Your task to perform on an android device: change keyboard looks Image 0: 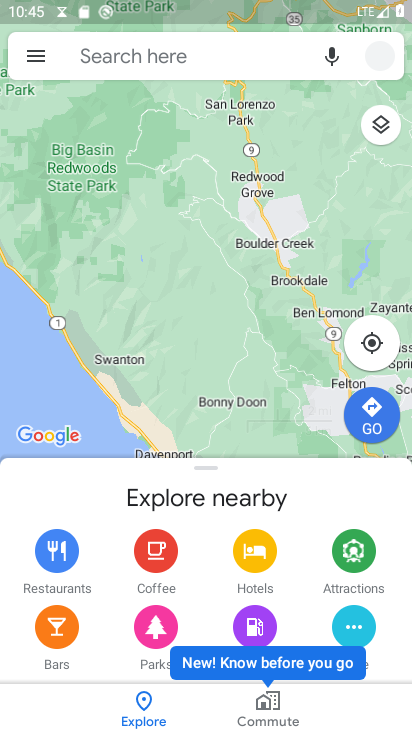
Step 0: press home button
Your task to perform on an android device: change keyboard looks Image 1: 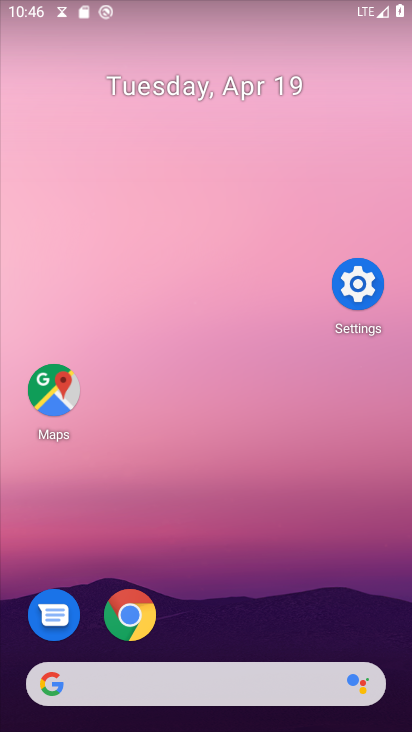
Step 1: click (359, 280)
Your task to perform on an android device: change keyboard looks Image 2: 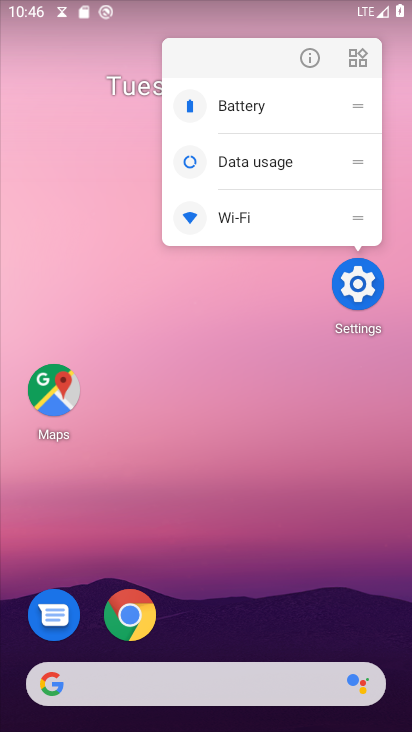
Step 2: click (308, 60)
Your task to perform on an android device: change keyboard looks Image 3: 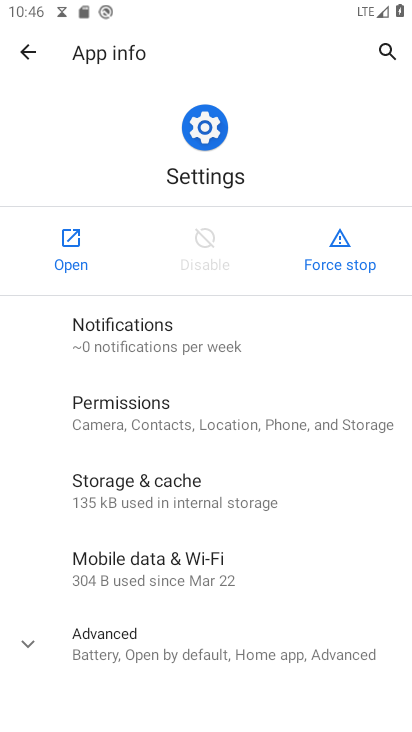
Step 3: click (67, 241)
Your task to perform on an android device: change keyboard looks Image 4: 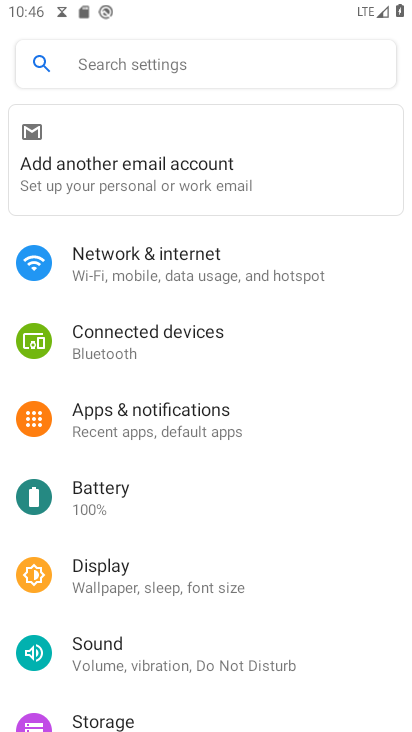
Step 4: drag from (226, 594) to (290, 84)
Your task to perform on an android device: change keyboard looks Image 5: 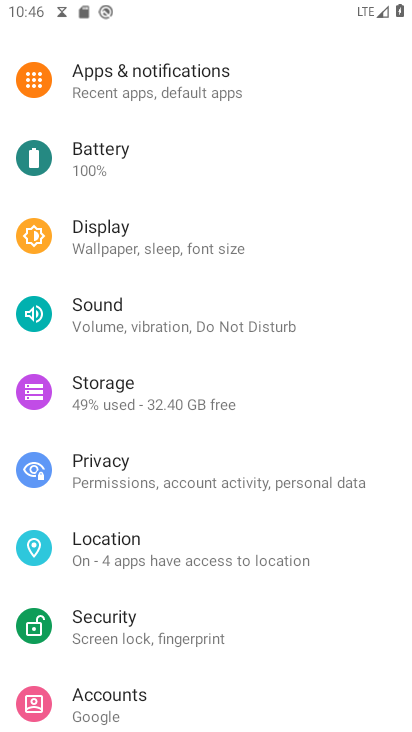
Step 5: drag from (189, 642) to (276, 140)
Your task to perform on an android device: change keyboard looks Image 6: 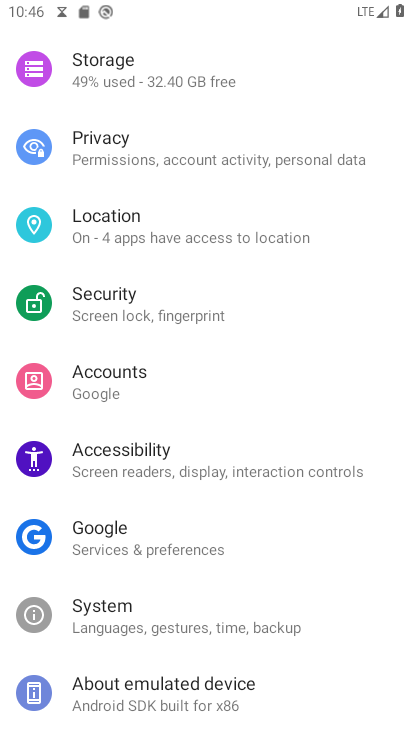
Step 6: drag from (118, 630) to (175, 266)
Your task to perform on an android device: change keyboard looks Image 7: 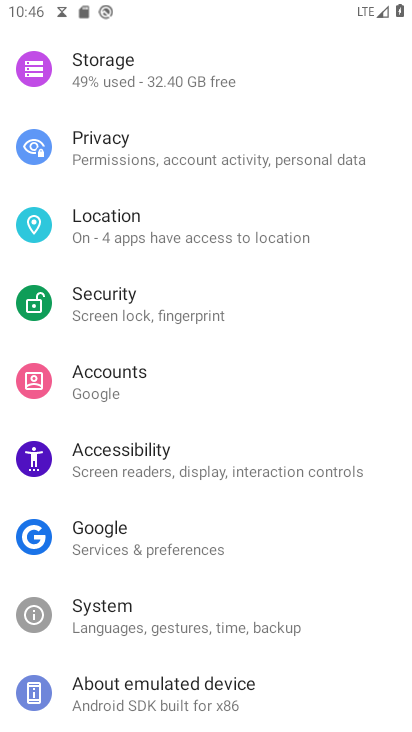
Step 7: click (115, 605)
Your task to perform on an android device: change keyboard looks Image 8: 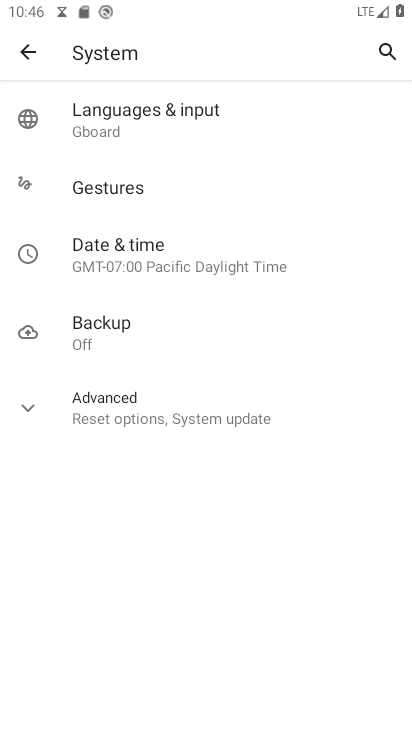
Step 8: click (204, 113)
Your task to perform on an android device: change keyboard looks Image 9: 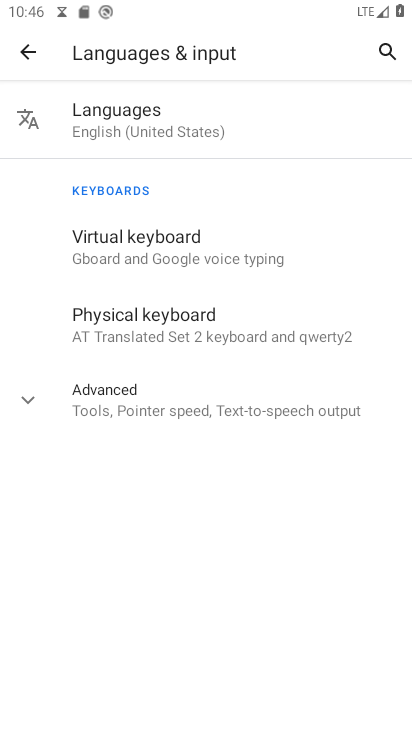
Step 9: click (164, 247)
Your task to perform on an android device: change keyboard looks Image 10: 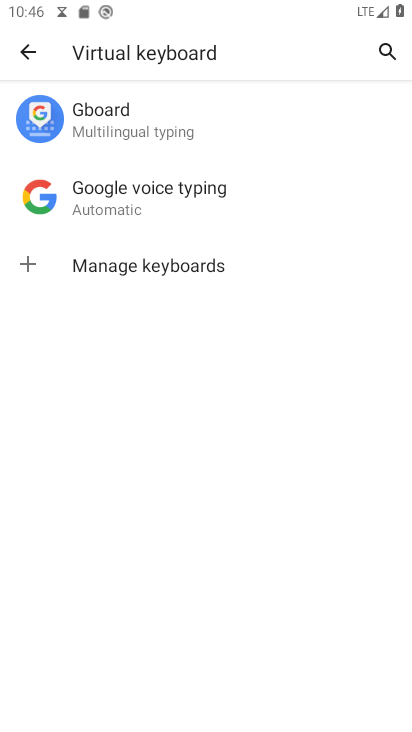
Step 10: click (176, 125)
Your task to perform on an android device: change keyboard looks Image 11: 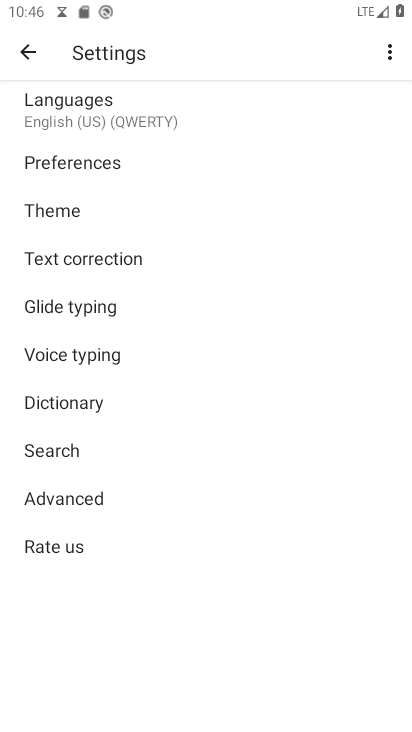
Step 11: click (90, 212)
Your task to perform on an android device: change keyboard looks Image 12: 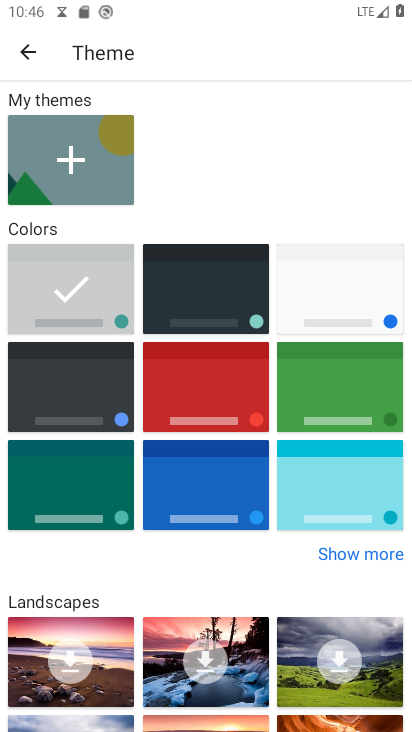
Step 12: click (222, 475)
Your task to perform on an android device: change keyboard looks Image 13: 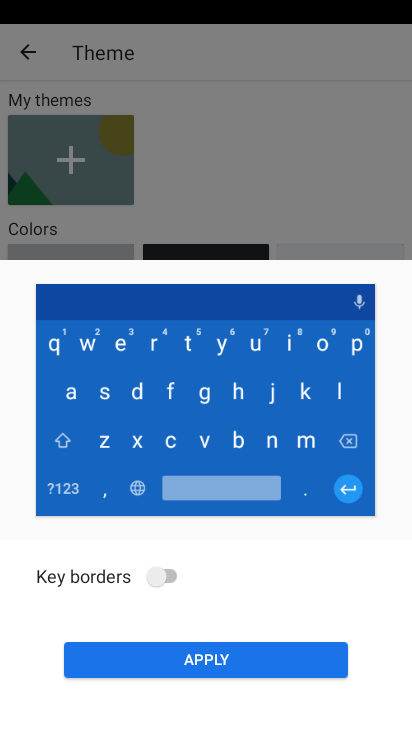
Step 13: click (180, 665)
Your task to perform on an android device: change keyboard looks Image 14: 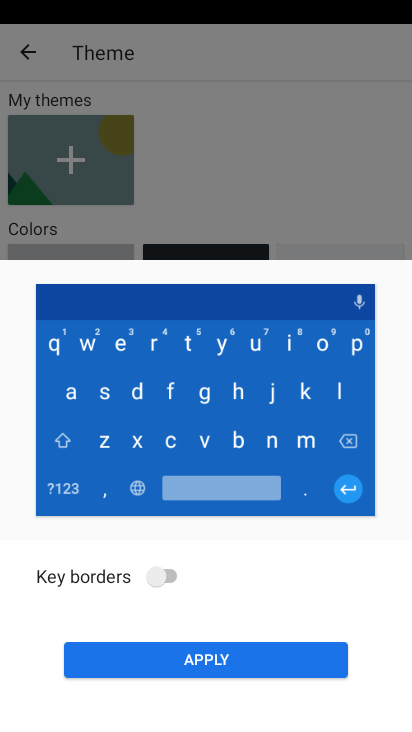
Step 14: task complete